Your task to perform on an android device: Open Youtube and go to "Your channel" Image 0: 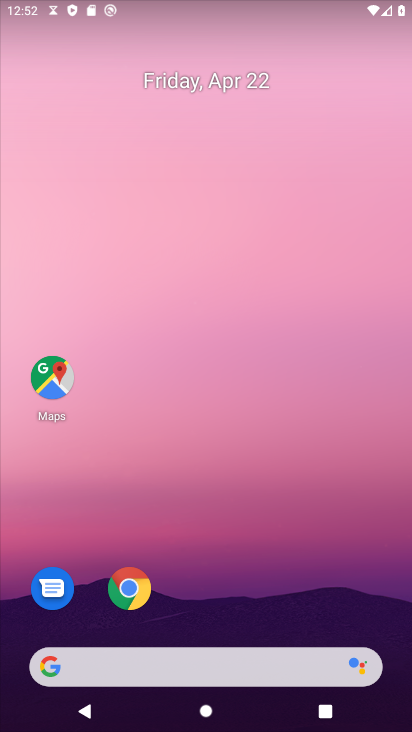
Step 0: drag from (283, 694) to (321, 89)
Your task to perform on an android device: Open Youtube and go to "Your channel" Image 1: 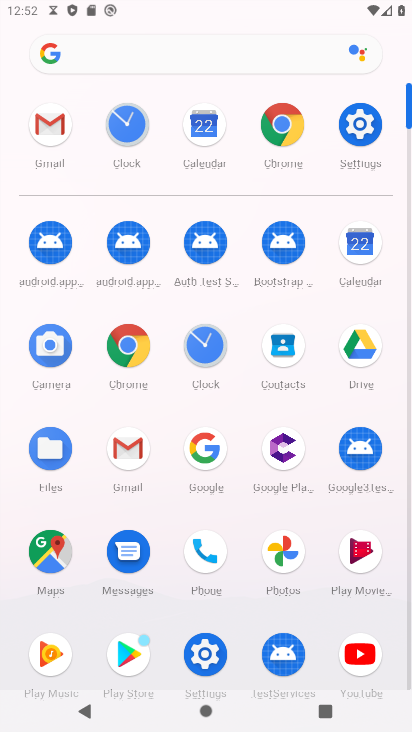
Step 1: drag from (246, 500) to (288, 215)
Your task to perform on an android device: Open Youtube and go to "Your channel" Image 2: 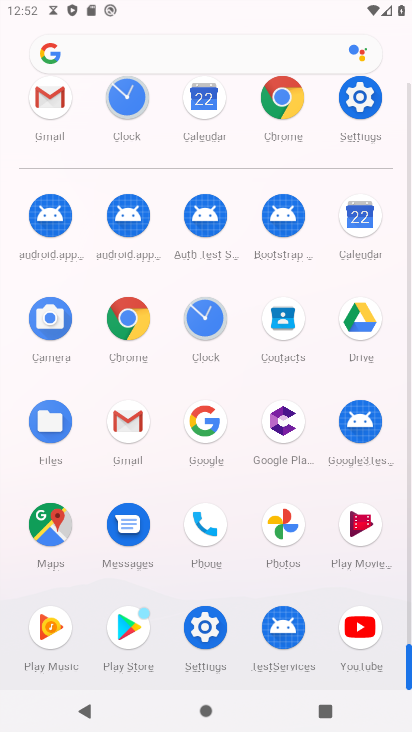
Step 2: click (362, 614)
Your task to perform on an android device: Open Youtube and go to "Your channel" Image 3: 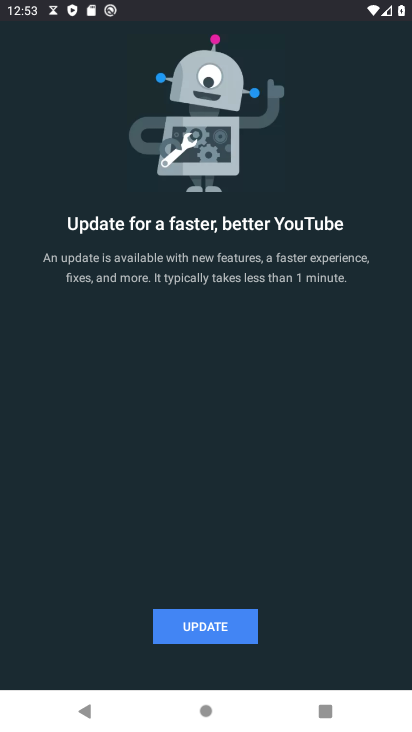
Step 3: click (217, 618)
Your task to perform on an android device: Open Youtube and go to "Your channel" Image 4: 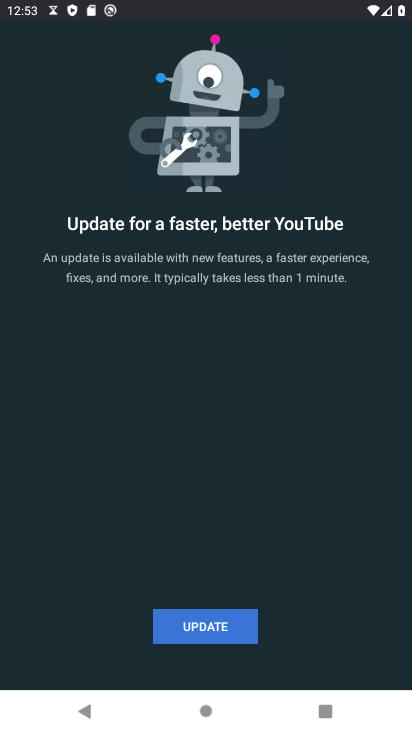
Step 4: click (200, 625)
Your task to perform on an android device: Open Youtube and go to "Your channel" Image 5: 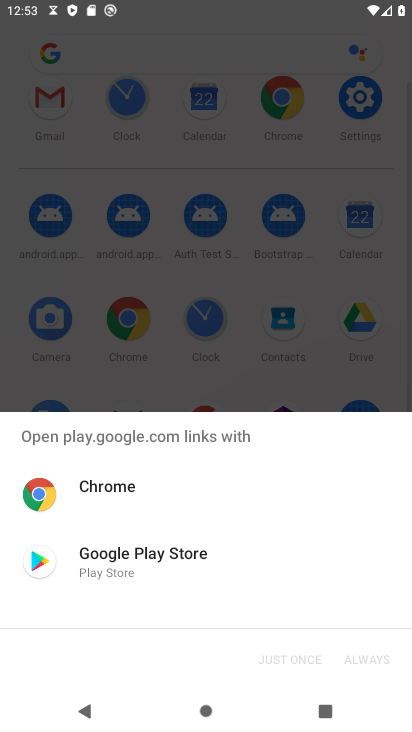
Step 5: click (153, 555)
Your task to perform on an android device: Open Youtube and go to "Your channel" Image 6: 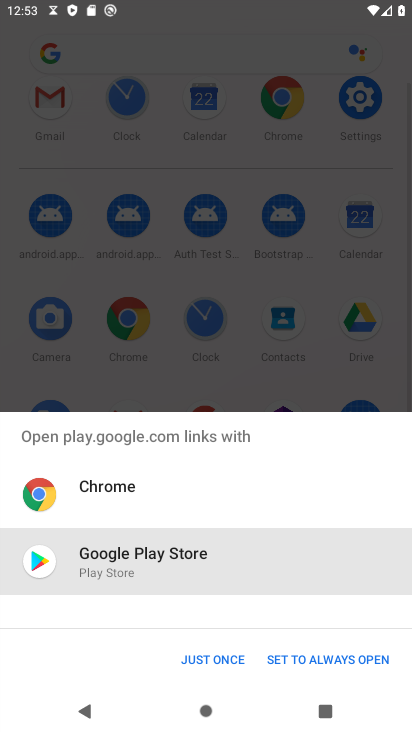
Step 6: click (223, 661)
Your task to perform on an android device: Open Youtube and go to "Your channel" Image 7: 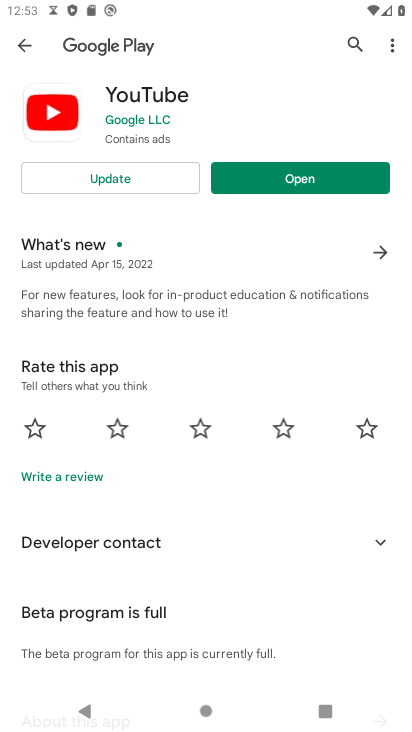
Step 7: click (134, 187)
Your task to perform on an android device: Open Youtube and go to "Your channel" Image 8: 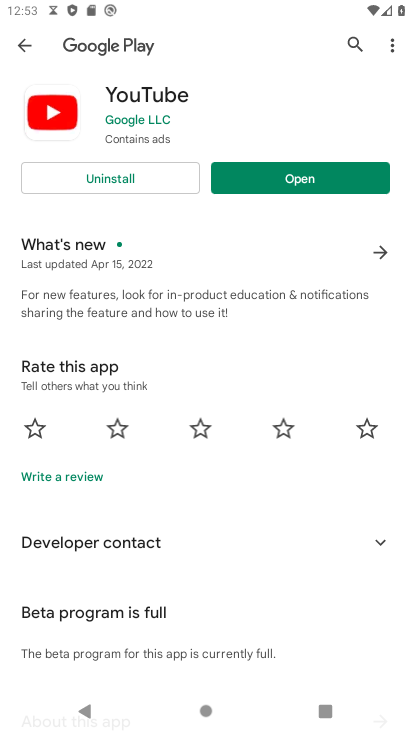
Step 8: drag from (133, 445) to (169, 465)
Your task to perform on an android device: Open Youtube and go to "Your channel" Image 9: 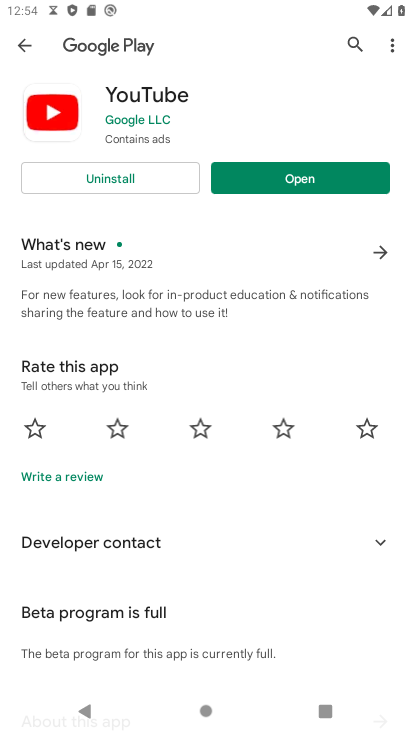
Step 9: click (309, 169)
Your task to perform on an android device: Open Youtube and go to "Your channel" Image 10: 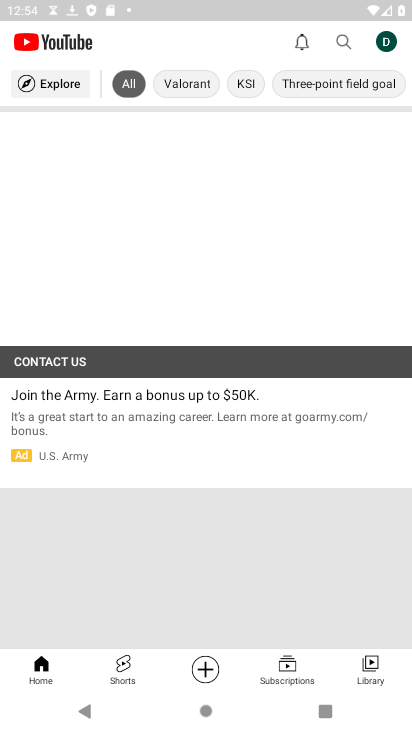
Step 10: click (383, 52)
Your task to perform on an android device: Open Youtube and go to "Your channel" Image 11: 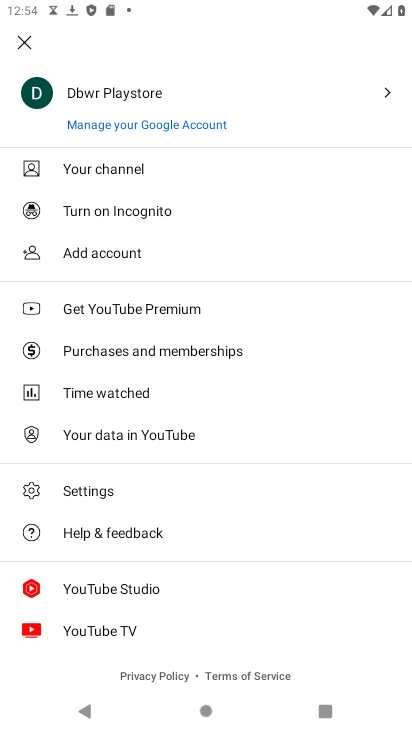
Step 11: click (147, 168)
Your task to perform on an android device: Open Youtube and go to "Your channel" Image 12: 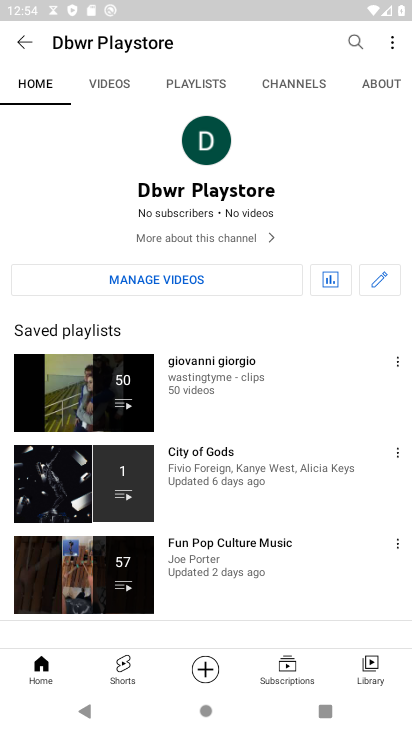
Step 12: task complete